Your task to perform on an android device: Open ESPN.com Image 0: 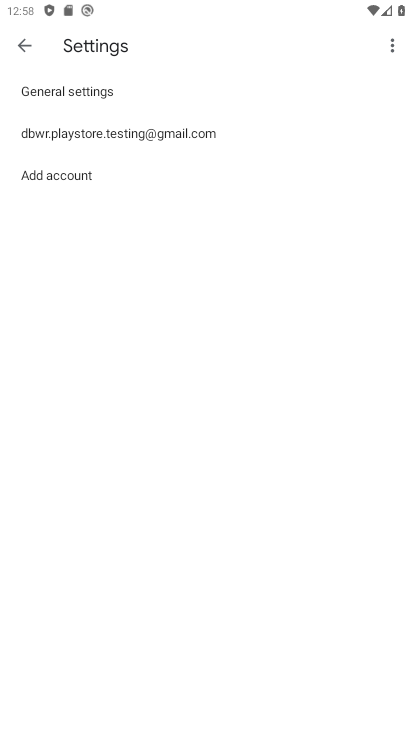
Step 0: press home button
Your task to perform on an android device: Open ESPN.com Image 1: 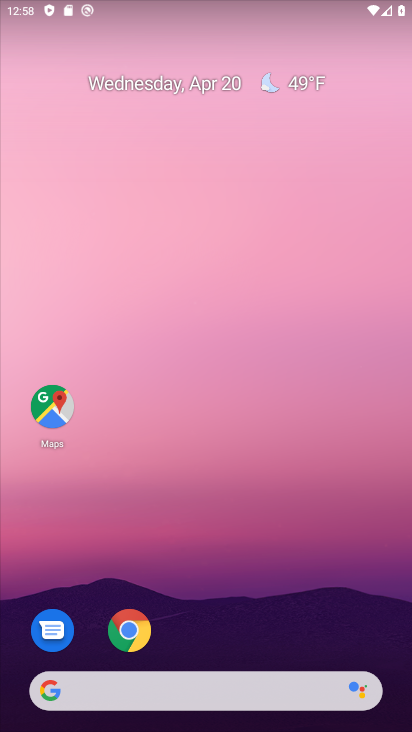
Step 1: click (125, 632)
Your task to perform on an android device: Open ESPN.com Image 2: 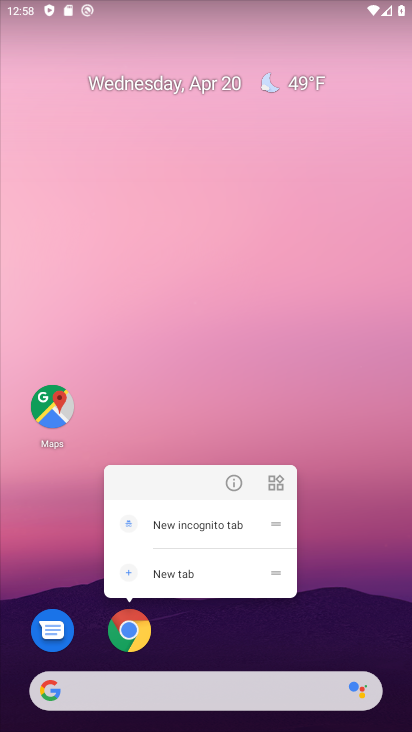
Step 2: click (125, 632)
Your task to perform on an android device: Open ESPN.com Image 3: 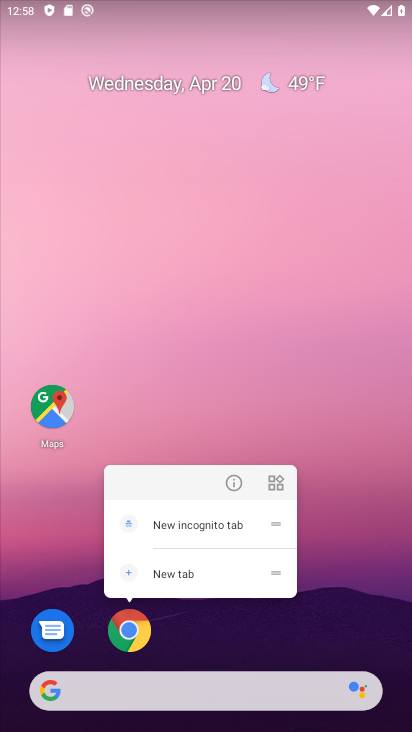
Step 3: click (125, 632)
Your task to perform on an android device: Open ESPN.com Image 4: 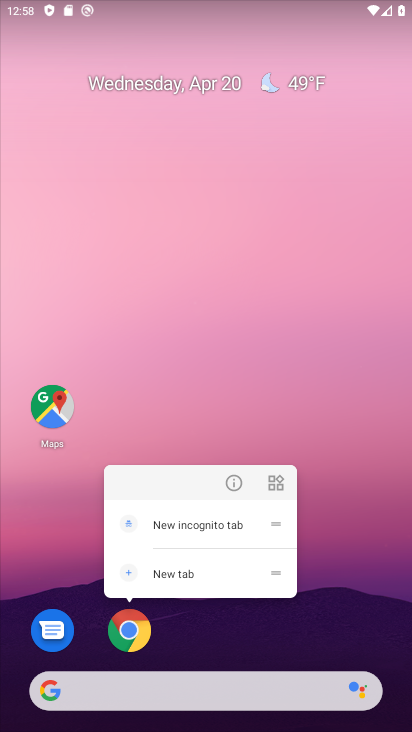
Step 4: click (120, 635)
Your task to perform on an android device: Open ESPN.com Image 5: 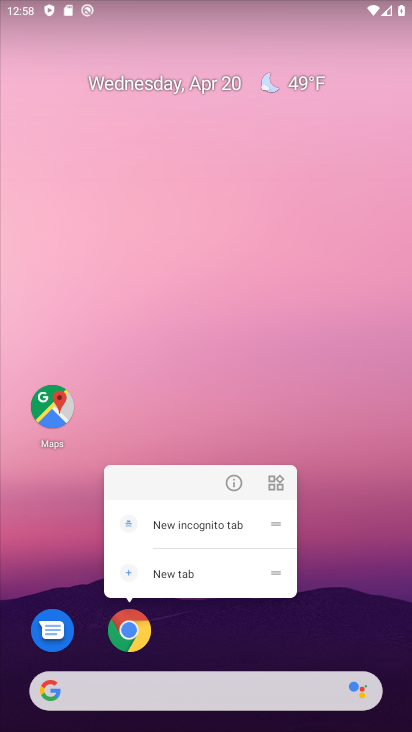
Step 5: click (123, 635)
Your task to perform on an android device: Open ESPN.com Image 6: 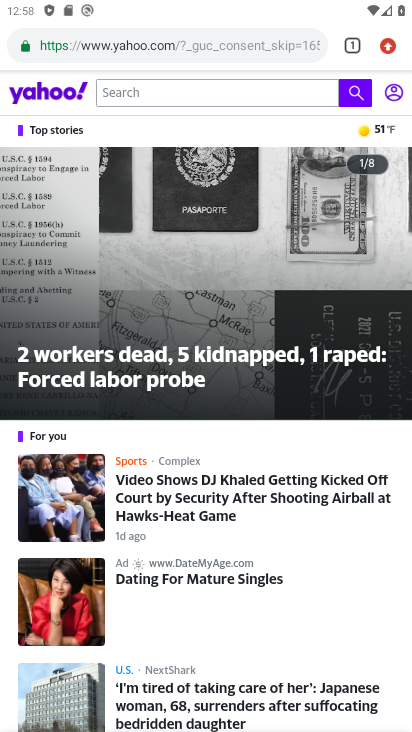
Step 6: click (151, 48)
Your task to perform on an android device: Open ESPN.com Image 7: 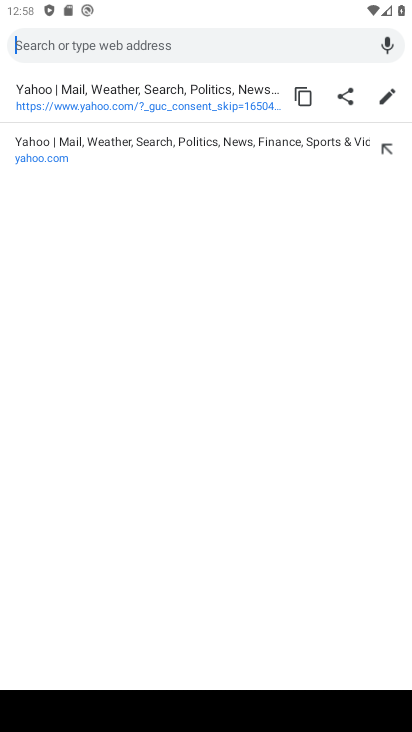
Step 7: type "ESPN.com"
Your task to perform on an android device: Open ESPN.com Image 8: 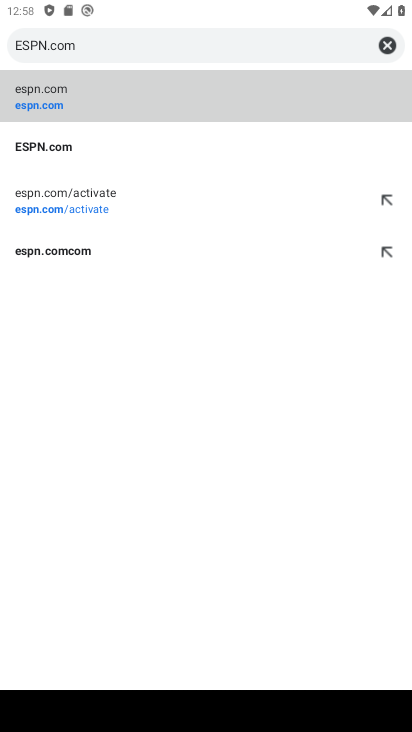
Step 8: click (50, 104)
Your task to perform on an android device: Open ESPN.com Image 9: 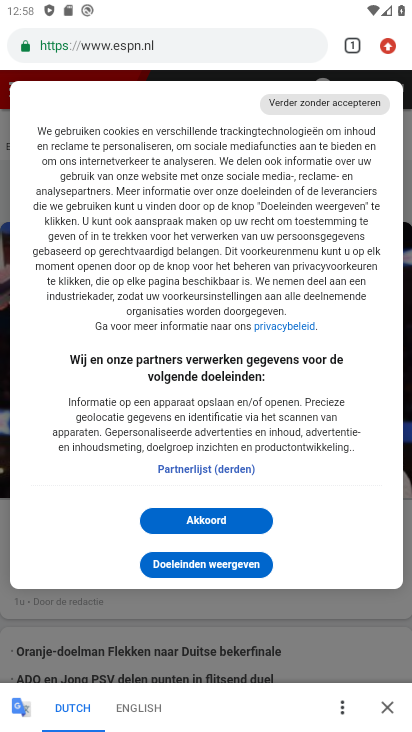
Step 9: task complete